Your task to perform on an android device: check out phone information Image 0: 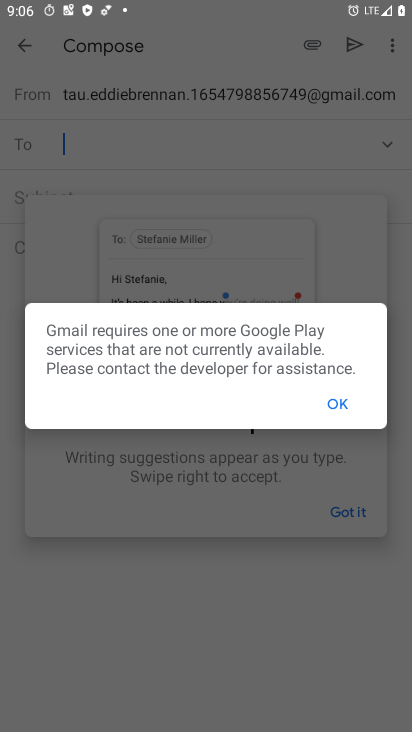
Step 0: press home button
Your task to perform on an android device: check out phone information Image 1: 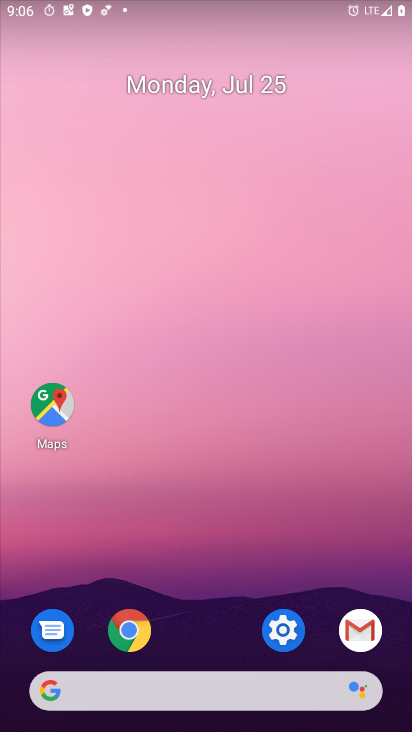
Step 1: click (285, 635)
Your task to perform on an android device: check out phone information Image 2: 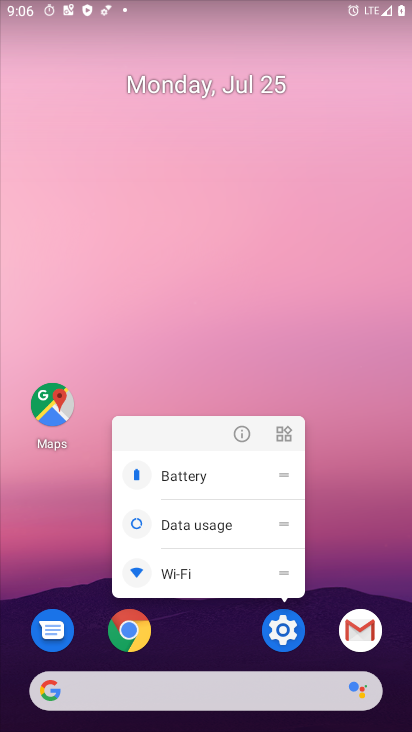
Step 2: click (284, 634)
Your task to perform on an android device: check out phone information Image 3: 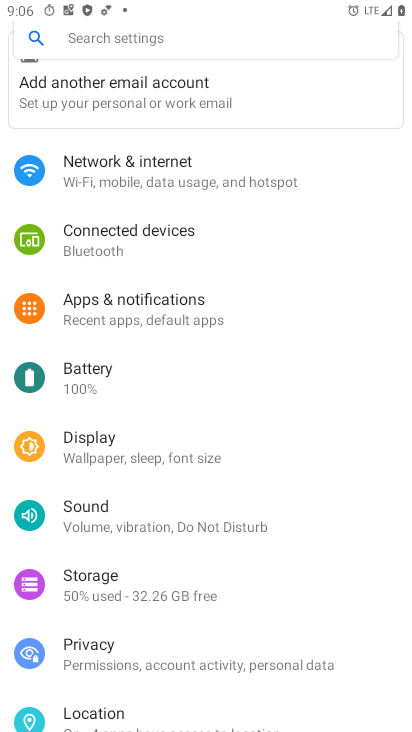
Step 3: click (127, 45)
Your task to perform on an android device: check out phone information Image 4: 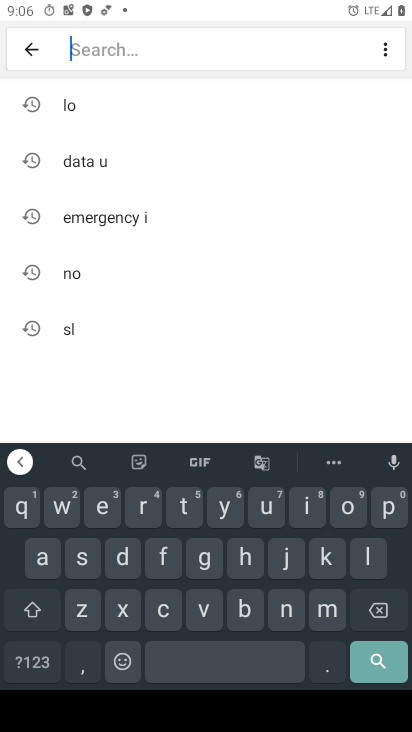
Step 4: click (50, 555)
Your task to perform on an android device: check out phone information Image 5: 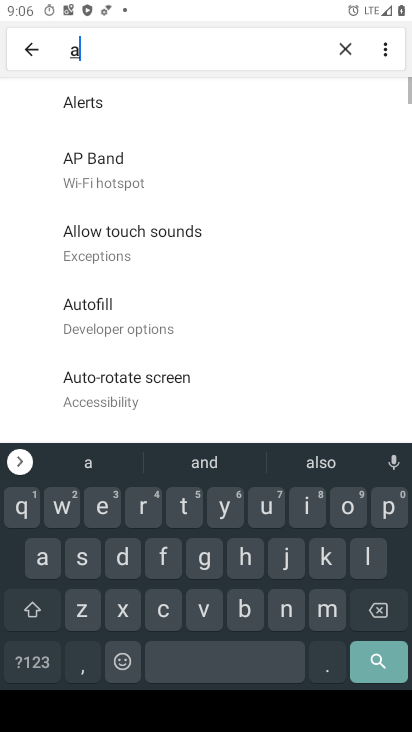
Step 5: click (245, 616)
Your task to perform on an android device: check out phone information Image 6: 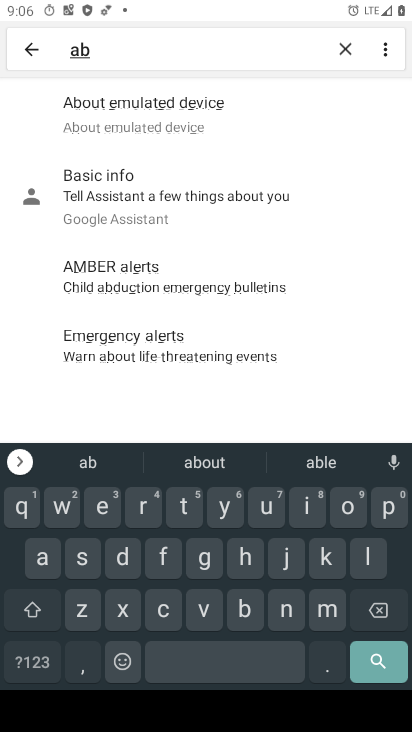
Step 6: click (125, 117)
Your task to perform on an android device: check out phone information Image 7: 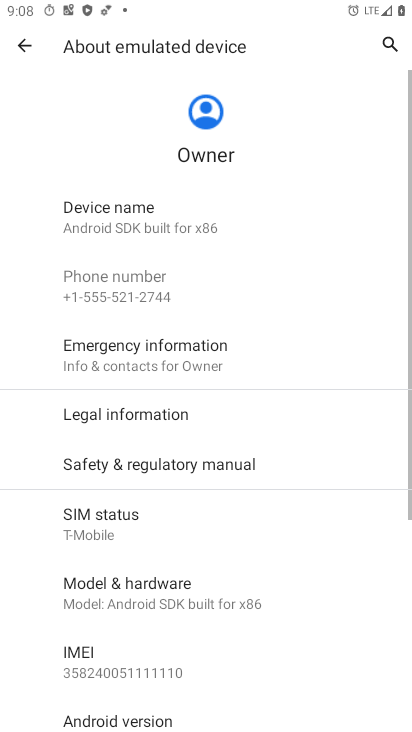
Step 7: task complete